Your task to perform on an android device: Go to Wikipedia Image 0: 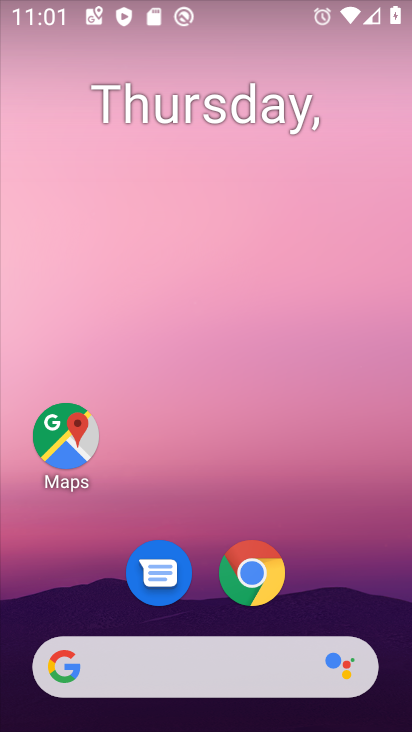
Step 0: click (249, 566)
Your task to perform on an android device: Go to Wikipedia Image 1: 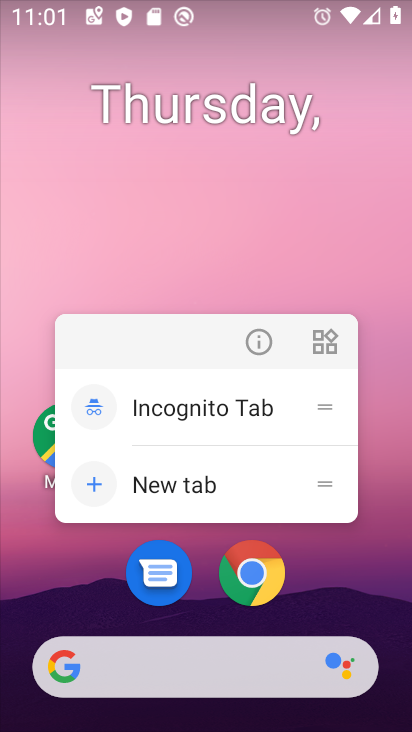
Step 1: click (248, 578)
Your task to perform on an android device: Go to Wikipedia Image 2: 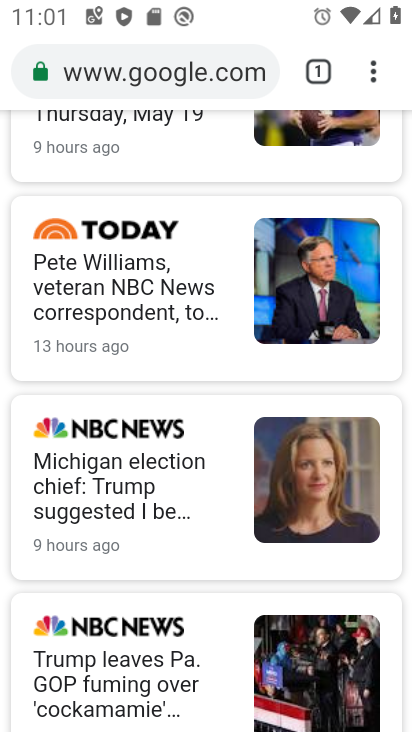
Step 2: click (163, 85)
Your task to perform on an android device: Go to Wikipedia Image 3: 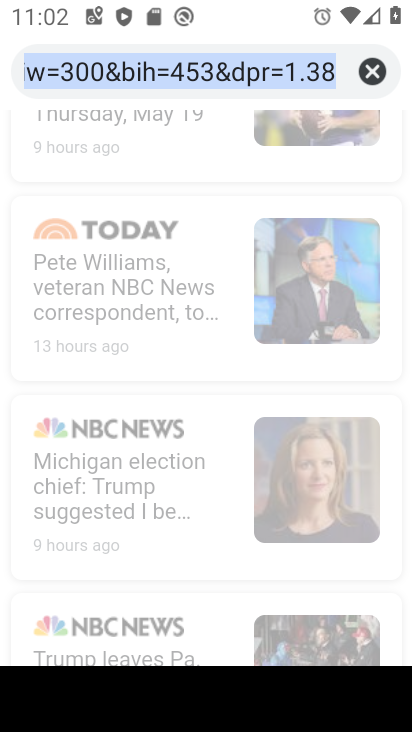
Step 3: type "wikipedia"
Your task to perform on an android device: Go to Wikipedia Image 4: 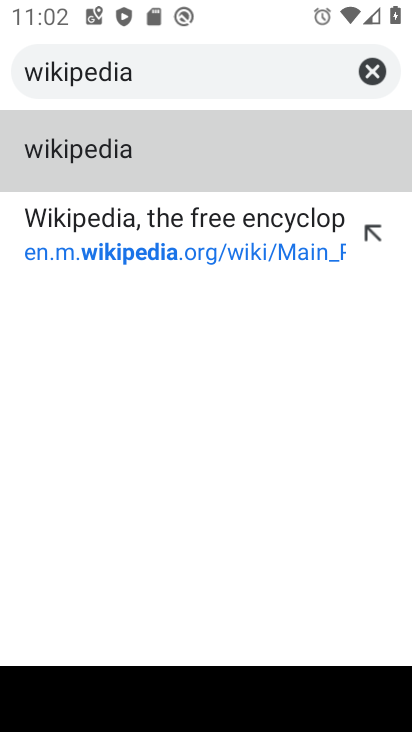
Step 4: click (100, 146)
Your task to perform on an android device: Go to Wikipedia Image 5: 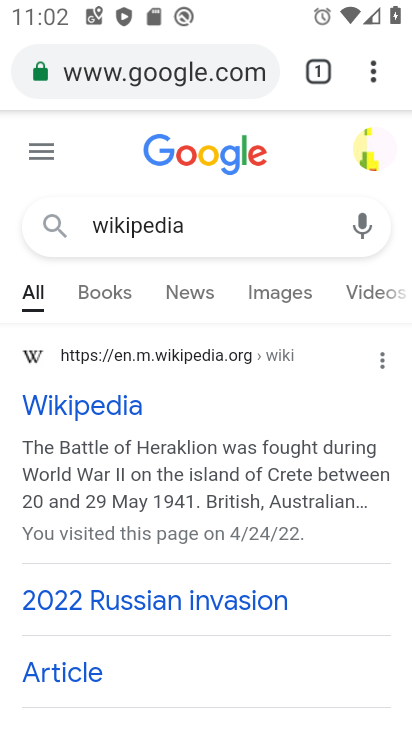
Step 5: click (103, 416)
Your task to perform on an android device: Go to Wikipedia Image 6: 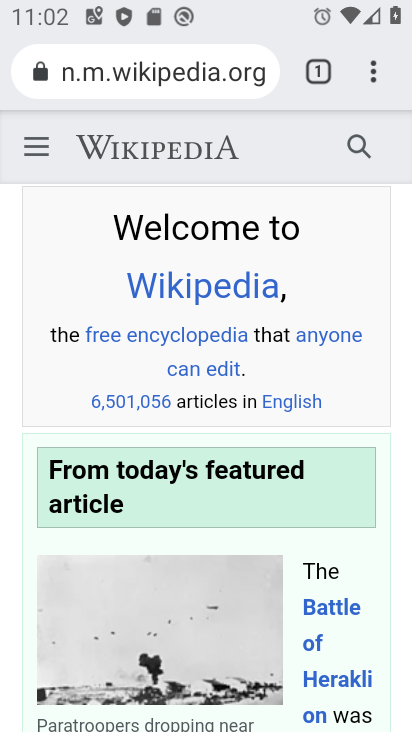
Step 6: task complete